Your task to perform on an android device: Clear the cart on costco.com. Add razer kraken to the cart on costco.com, then select checkout. Image 0: 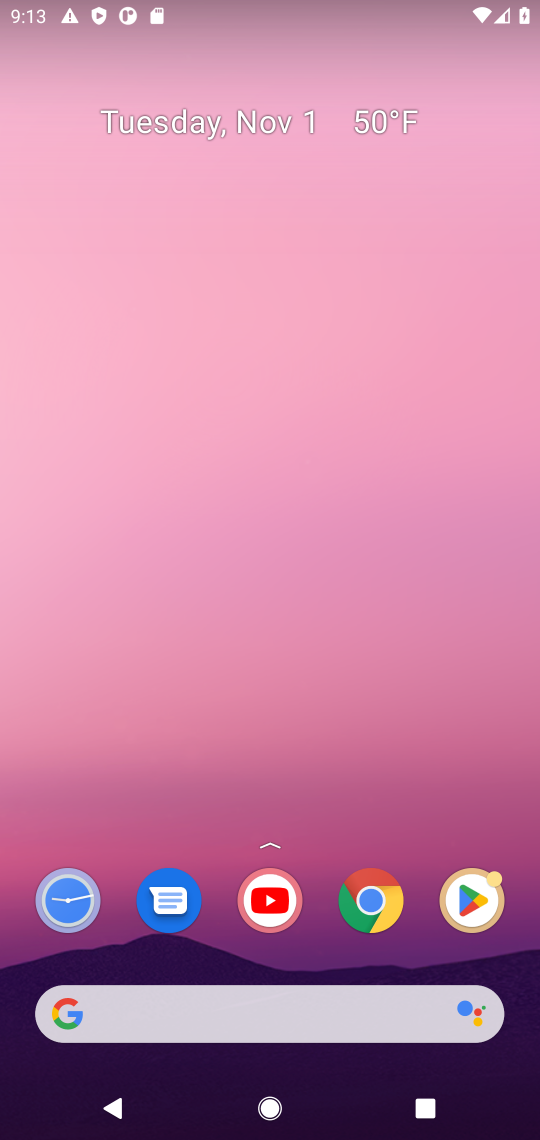
Step 0: click (364, 919)
Your task to perform on an android device: Clear the cart on costco.com. Add razer kraken to the cart on costco.com, then select checkout. Image 1: 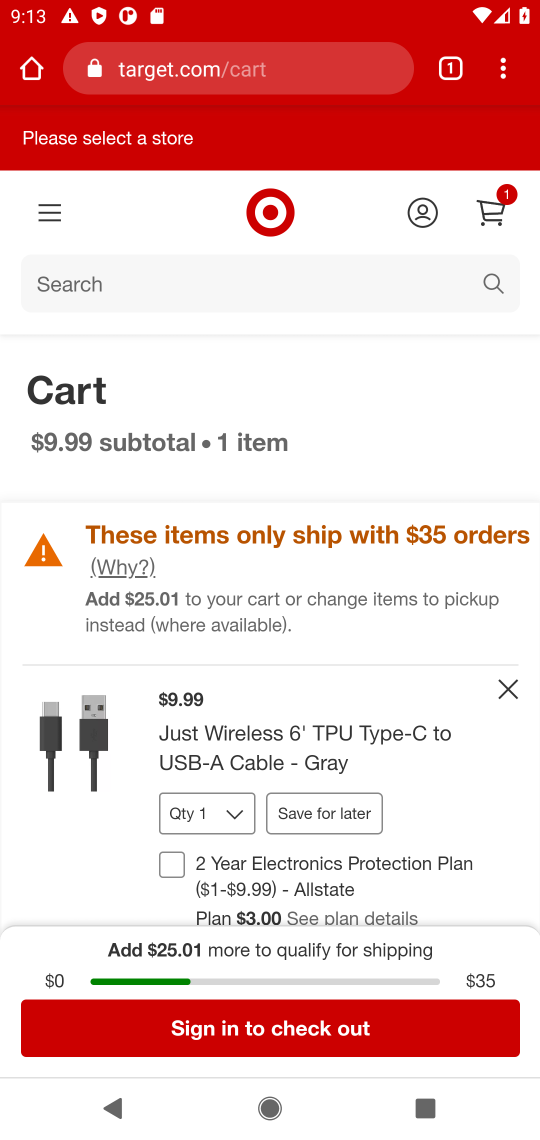
Step 1: click (161, 82)
Your task to perform on an android device: Clear the cart on costco.com. Add razer kraken to the cart on costco.com, then select checkout. Image 2: 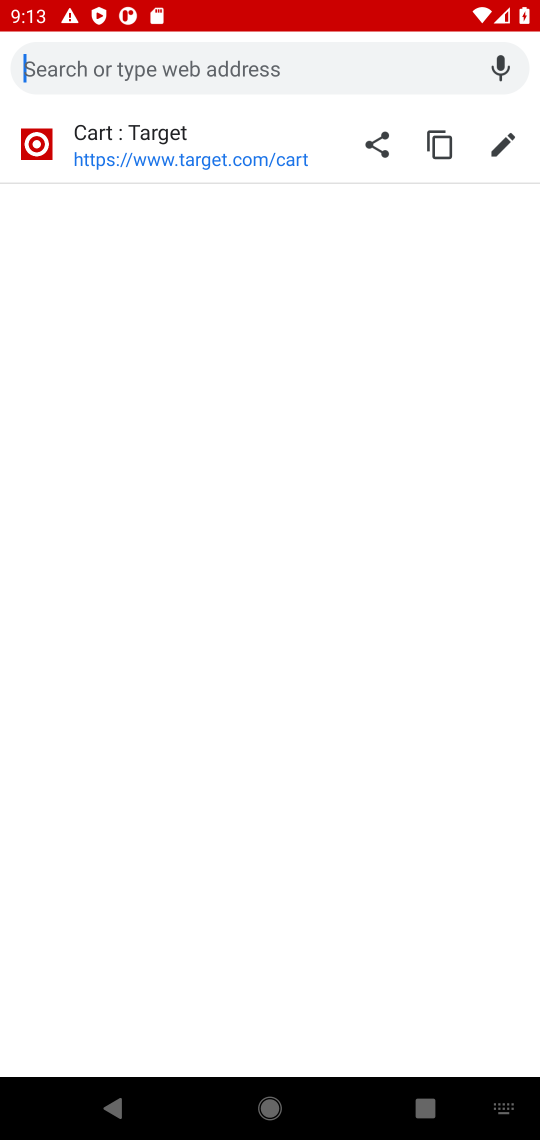
Step 2: type "costco"
Your task to perform on an android device: Clear the cart on costco.com. Add razer kraken to the cart on costco.com, then select checkout. Image 3: 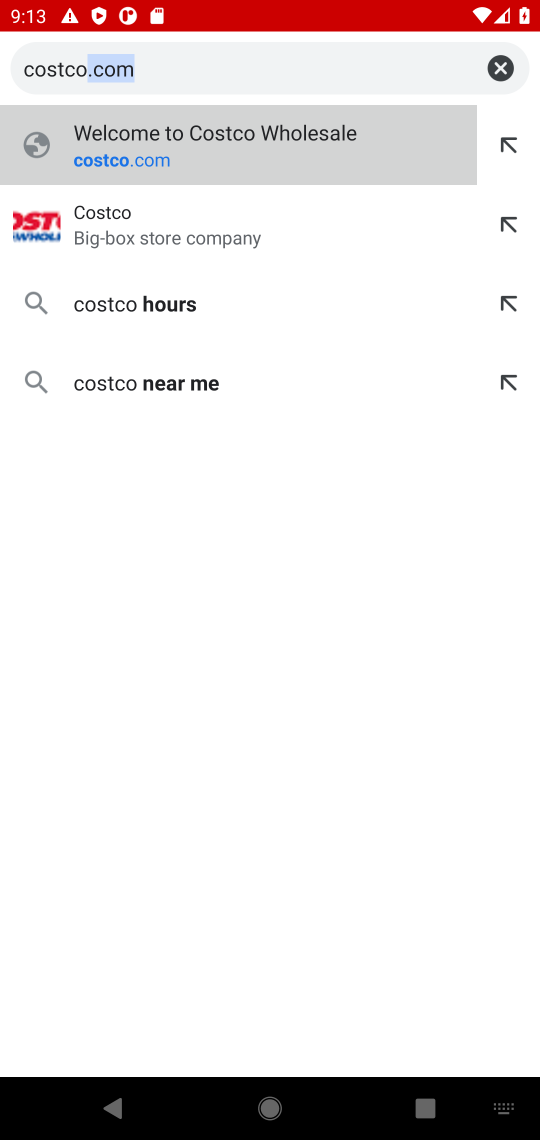
Step 3: click (307, 151)
Your task to perform on an android device: Clear the cart on costco.com. Add razer kraken to the cart on costco.com, then select checkout. Image 4: 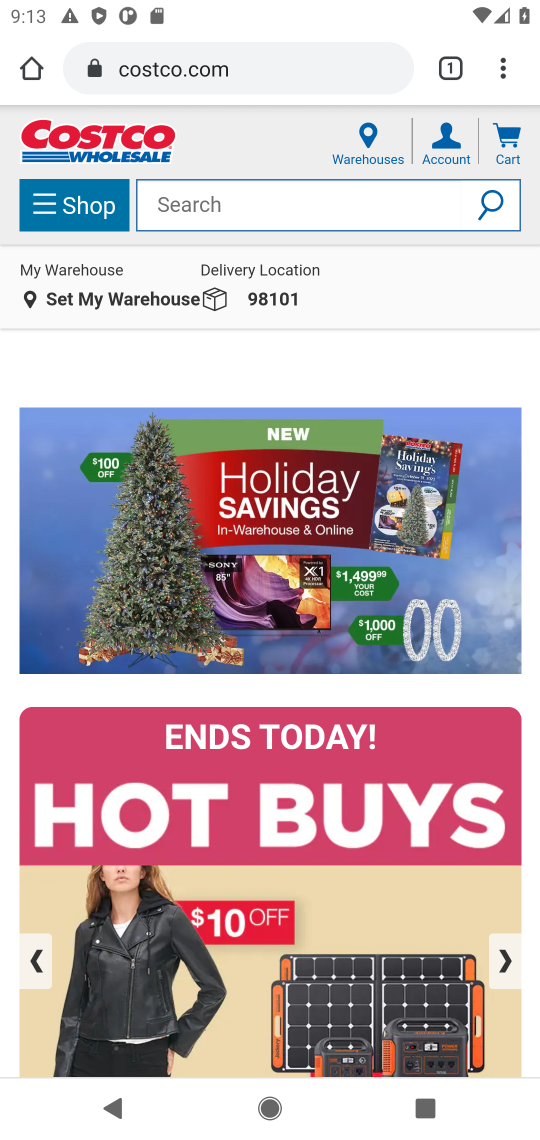
Step 4: click (503, 165)
Your task to perform on an android device: Clear the cart on costco.com. Add razer kraken to the cart on costco.com, then select checkout. Image 5: 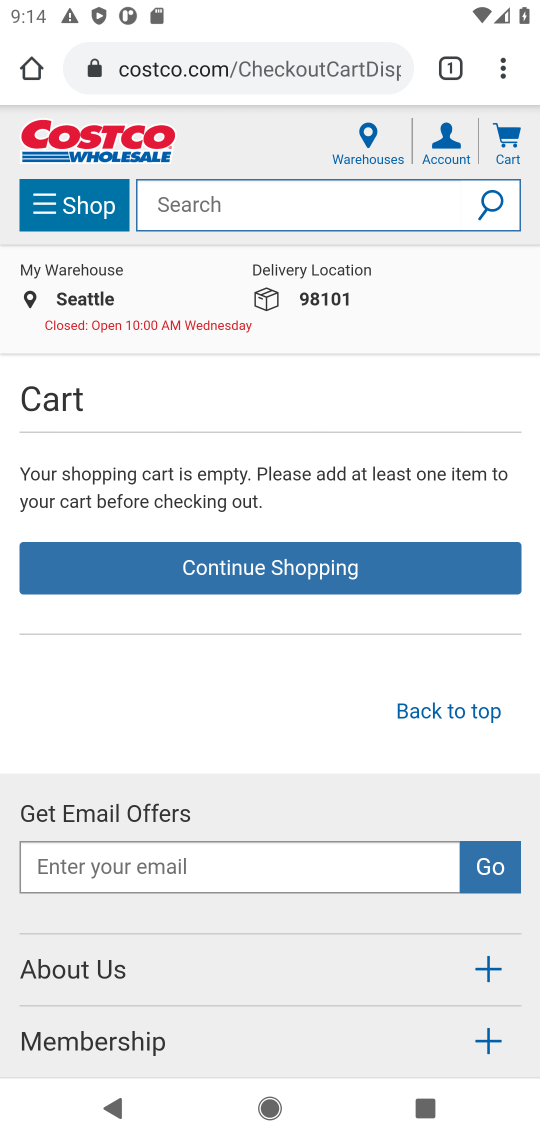
Step 5: click (332, 194)
Your task to perform on an android device: Clear the cart on costco.com. Add razer kraken to the cart on costco.com, then select checkout. Image 6: 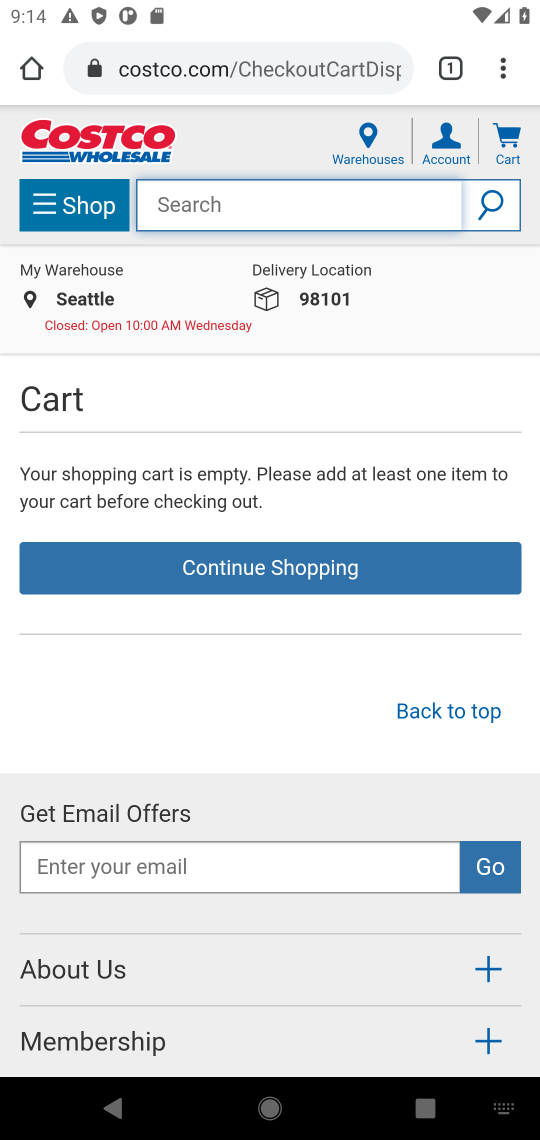
Step 6: type " razer kraken "
Your task to perform on an android device: Clear the cart on costco.com. Add razer kraken to the cart on costco.com, then select checkout. Image 7: 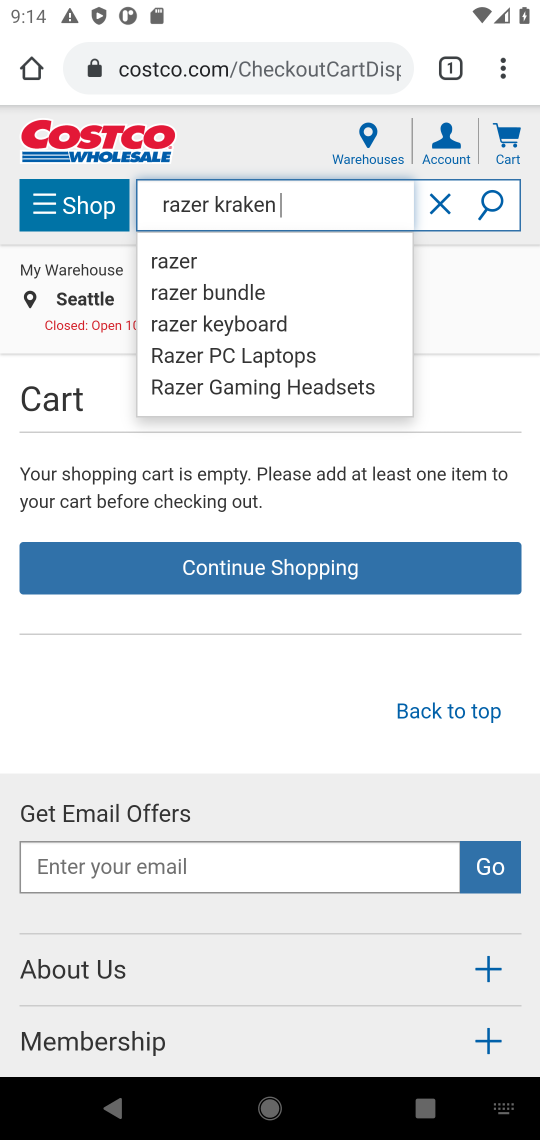
Step 7: click (497, 219)
Your task to perform on an android device: Clear the cart on costco.com. Add razer kraken to the cart on costco.com, then select checkout. Image 8: 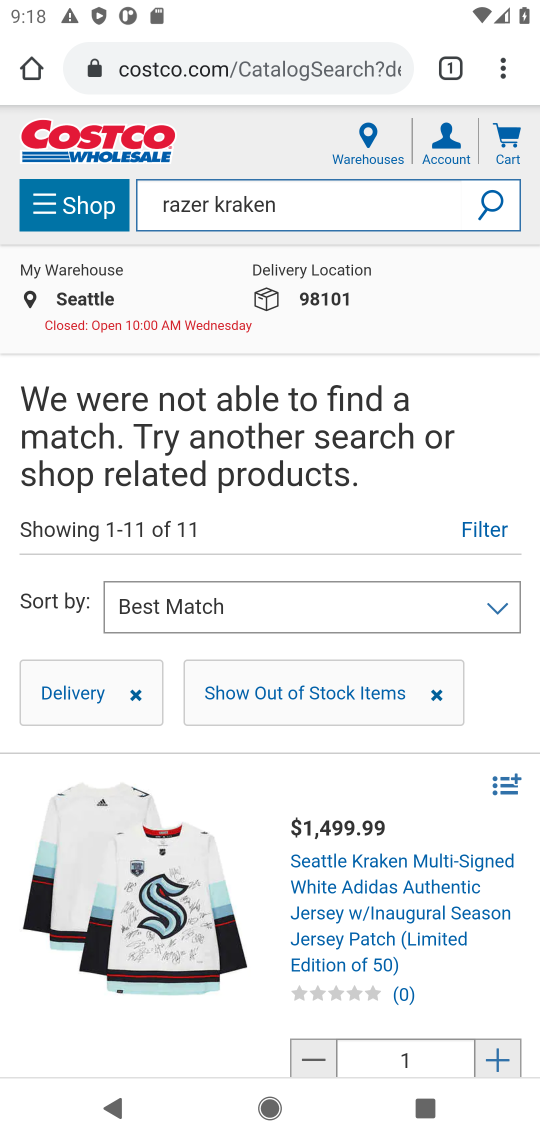
Step 8: task complete